Your task to perform on an android device: turn off priority inbox in the gmail app Image 0: 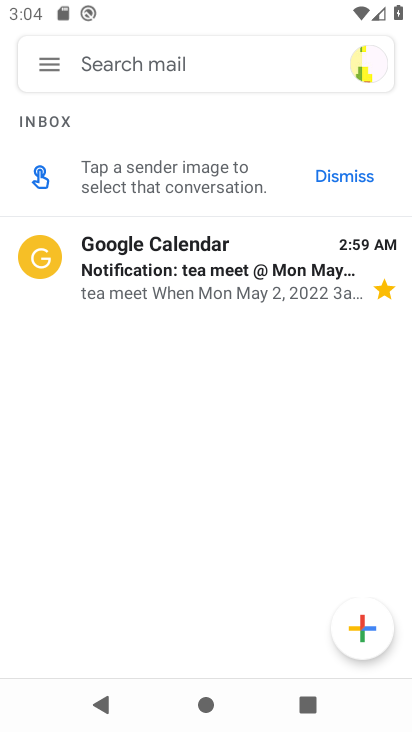
Step 0: press home button
Your task to perform on an android device: turn off priority inbox in the gmail app Image 1: 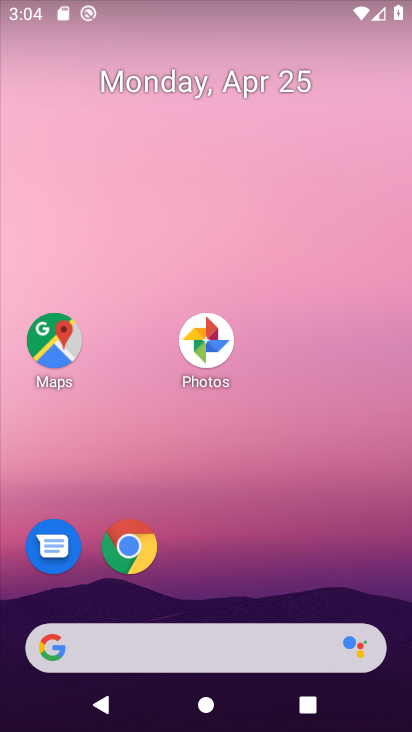
Step 1: drag from (312, 528) to (344, 218)
Your task to perform on an android device: turn off priority inbox in the gmail app Image 2: 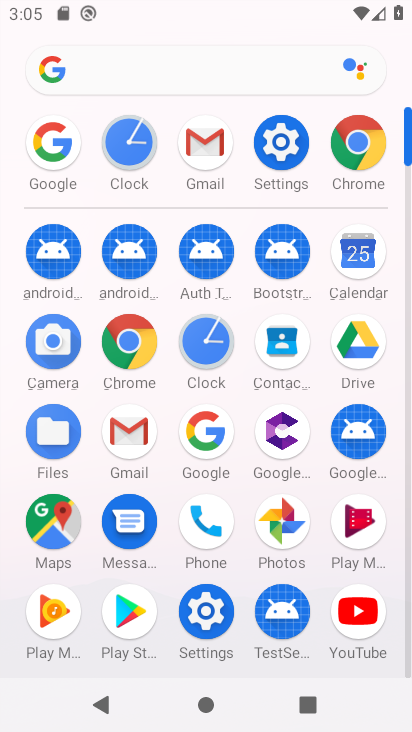
Step 2: click (192, 137)
Your task to perform on an android device: turn off priority inbox in the gmail app Image 3: 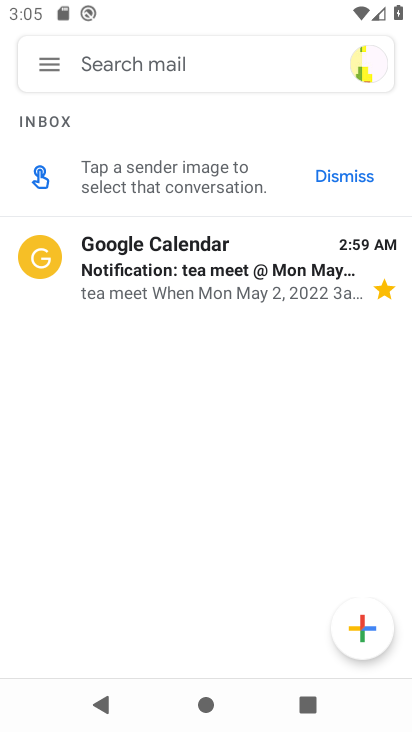
Step 3: click (39, 58)
Your task to perform on an android device: turn off priority inbox in the gmail app Image 4: 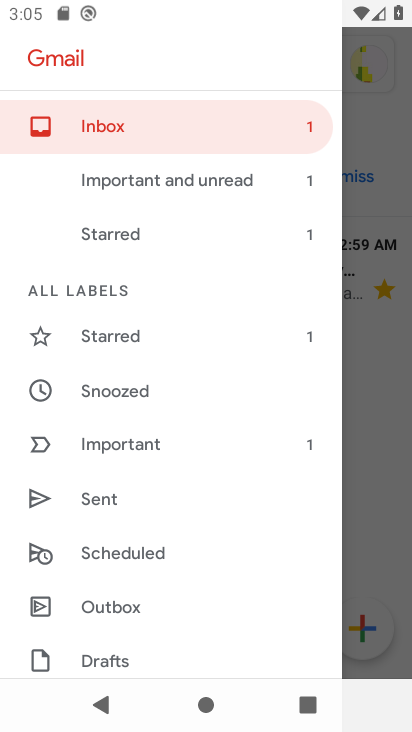
Step 4: drag from (139, 533) to (228, 229)
Your task to perform on an android device: turn off priority inbox in the gmail app Image 5: 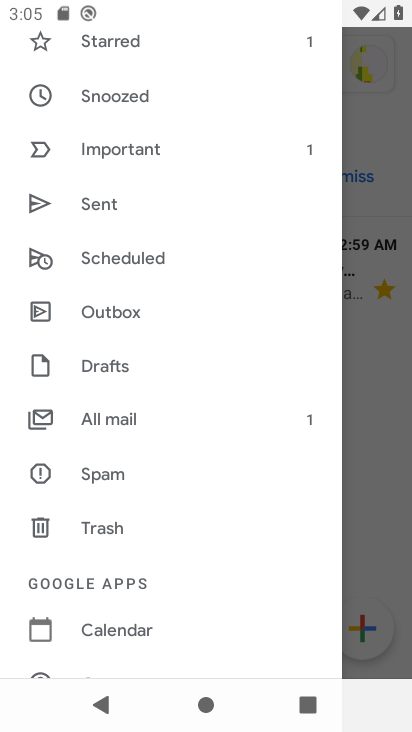
Step 5: drag from (137, 566) to (229, 219)
Your task to perform on an android device: turn off priority inbox in the gmail app Image 6: 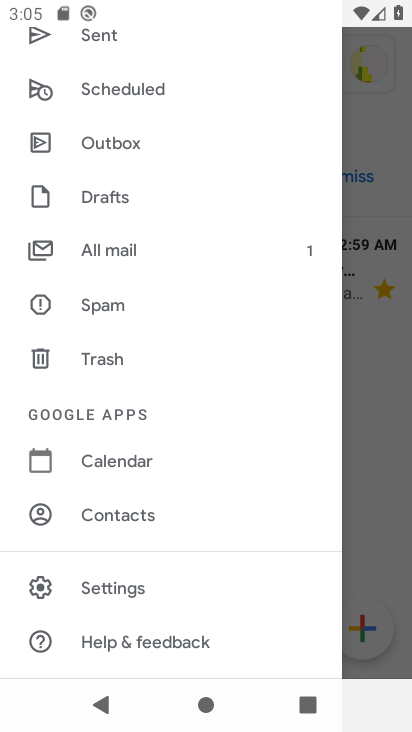
Step 6: click (152, 582)
Your task to perform on an android device: turn off priority inbox in the gmail app Image 7: 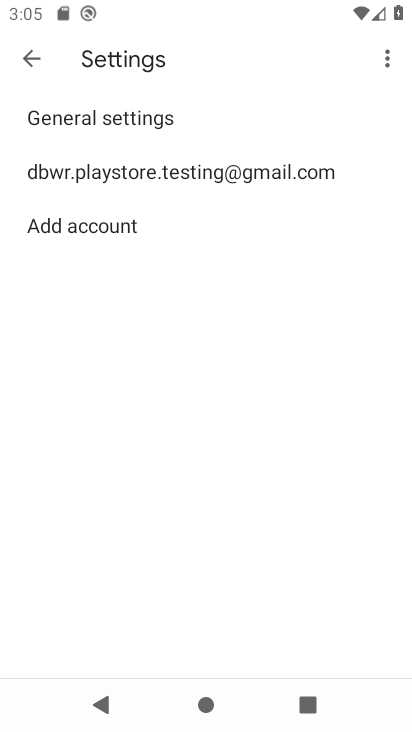
Step 7: click (243, 168)
Your task to perform on an android device: turn off priority inbox in the gmail app Image 8: 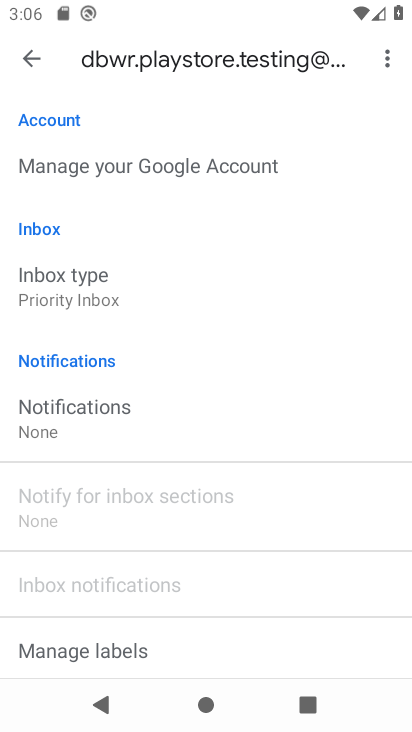
Step 8: drag from (158, 459) to (221, 140)
Your task to perform on an android device: turn off priority inbox in the gmail app Image 9: 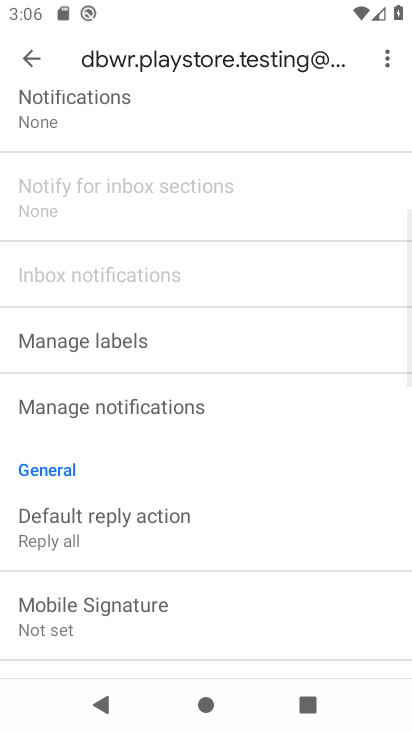
Step 9: drag from (172, 645) to (245, 115)
Your task to perform on an android device: turn off priority inbox in the gmail app Image 10: 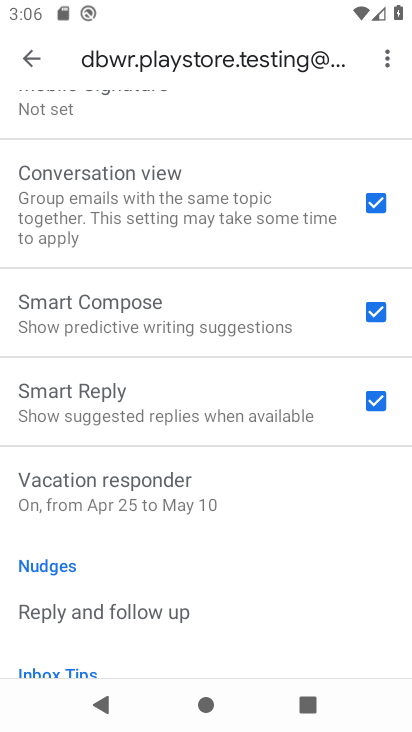
Step 10: drag from (126, 99) to (211, 660)
Your task to perform on an android device: turn off priority inbox in the gmail app Image 11: 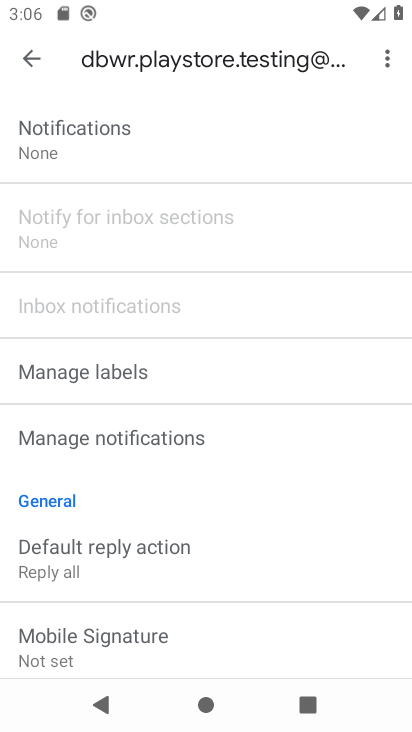
Step 11: drag from (144, 141) to (148, 534)
Your task to perform on an android device: turn off priority inbox in the gmail app Image 12: 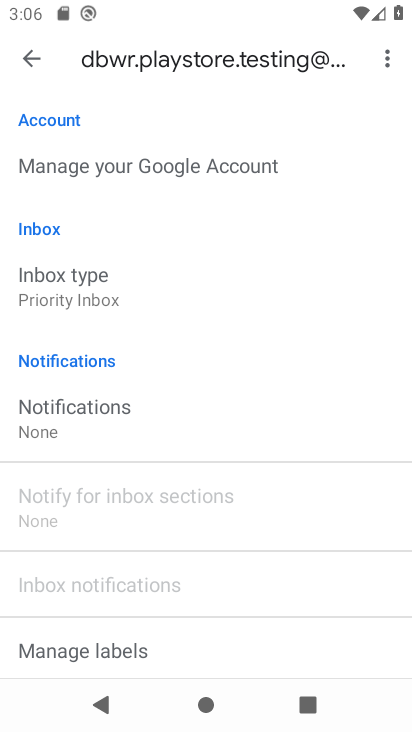
Step 12: click (101, 290)
Your task to perform on an android device: turn off priority inbox in the gmail app Image 13: 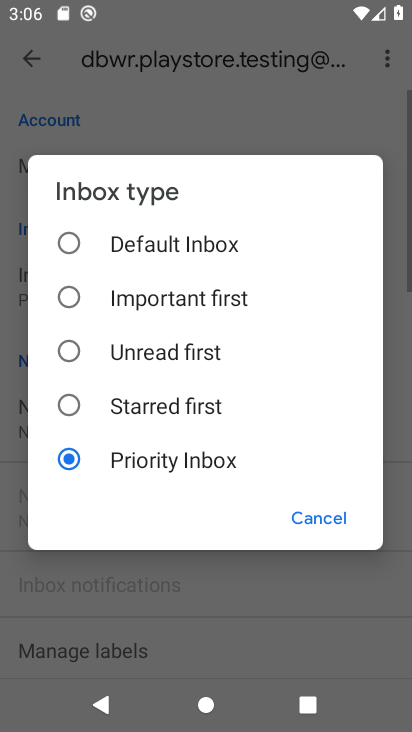
Step 13: click (128, 245)
Your task to perform on an android device: turn off priority inbox in the gmail app Image 14: 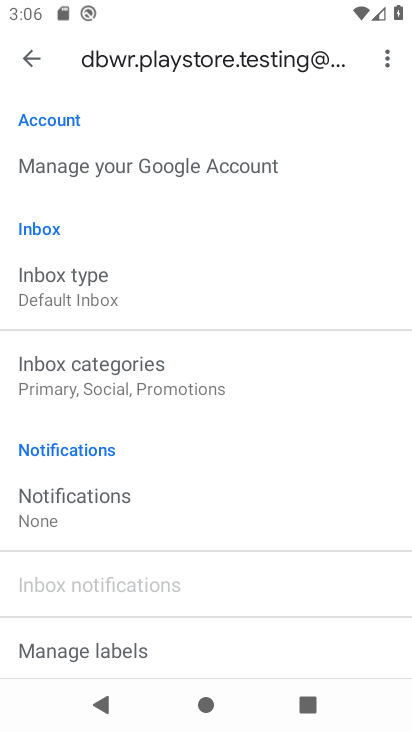
Step 14: task complete